Your task to perform on an android device: turn off priority inbox in the gmail app Image 0: 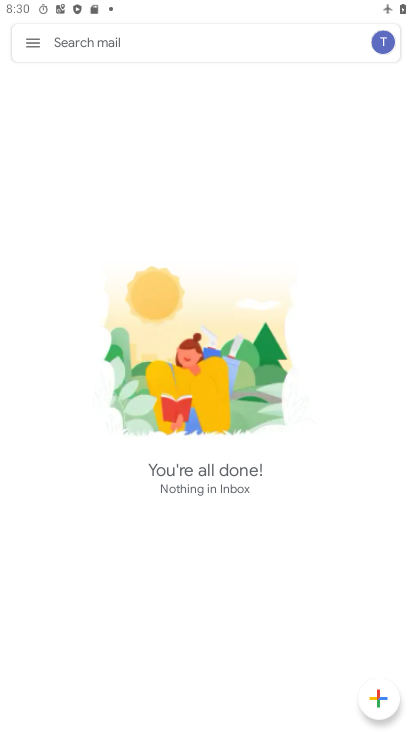
Step 0: click (23, 38)
Your task to perform on an android device: turn off priority inbox in the gmail app Image 1: 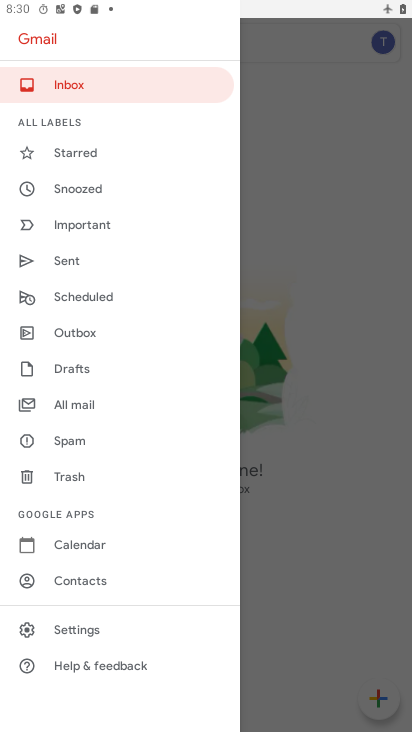
Step 1: click (106, 620)
Your task to perform on an android device: turn off priority inbox in the gmail app Image 2: 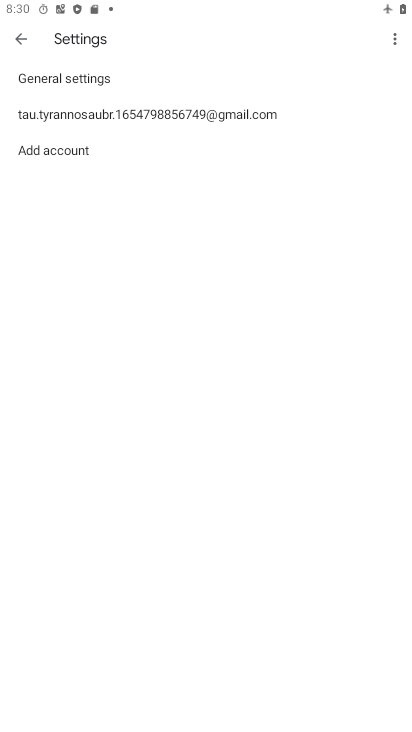
Step 2: click (263, 109)
Your task to perform on an android device: turn off priority inbox in the gmail app Image 3: 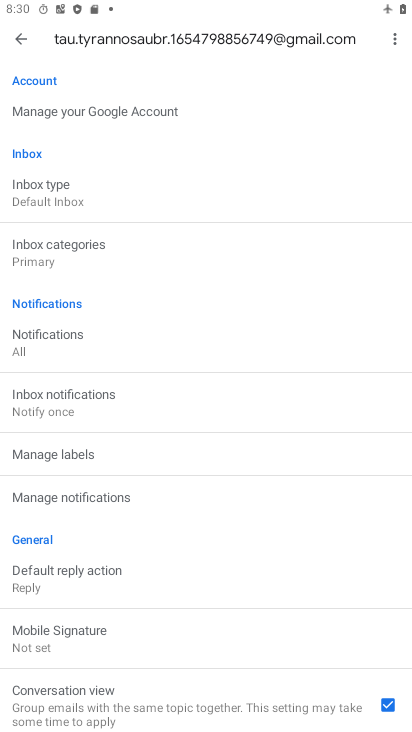
Step 3: click (93, 187)
Your task to perform on an android device: turn off priority inbox in the gmail app Image 4: 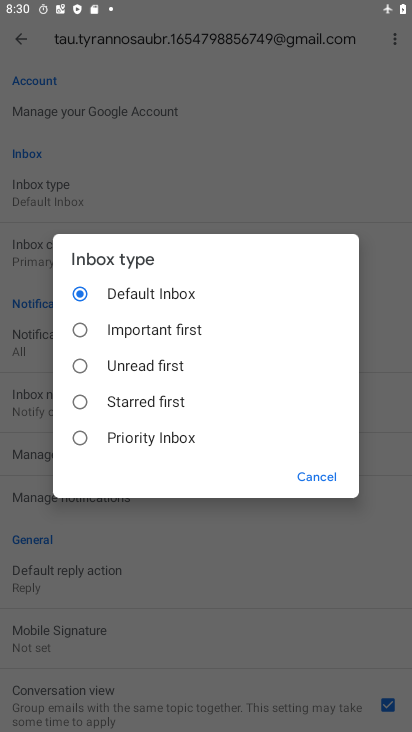
Step 4: click (78, 395)
Your task to perform on an android device: turn off priority inbox in the gmail app Image 5: 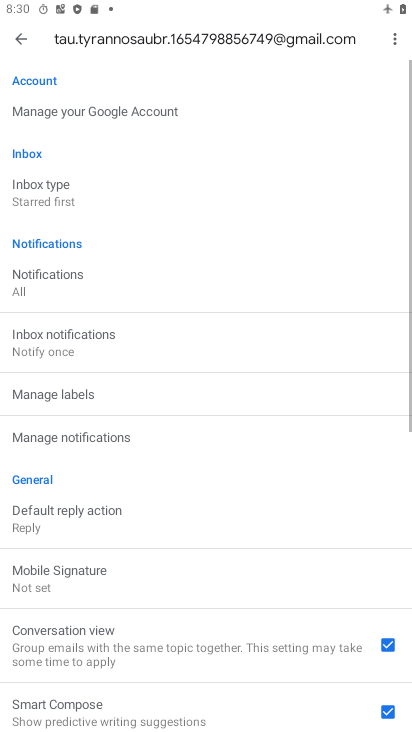
Step 5: task complete